Your task to perform on an android device: What's on my calendar today? Image 0: 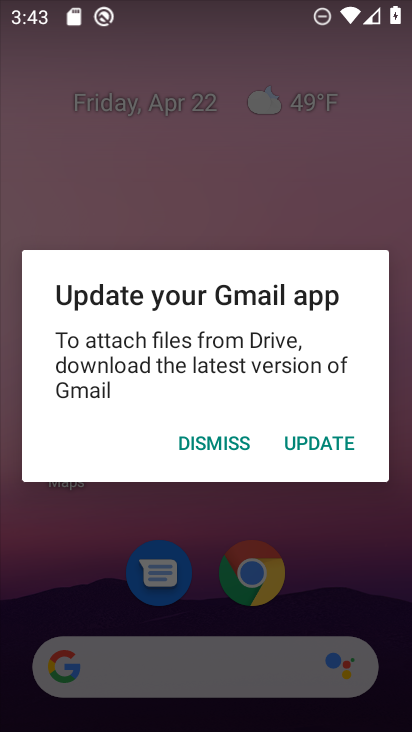
Step 0: press home button
Your task to perform on an android device: What's on my calendar today? Image 1: 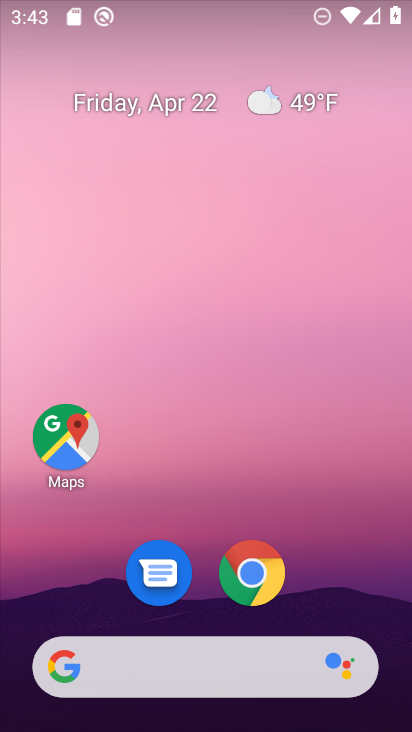
Step 1: drag from (310, 423) to (357, 80)
Your task to perform on an android device: What's on my calendar today? Image 2: 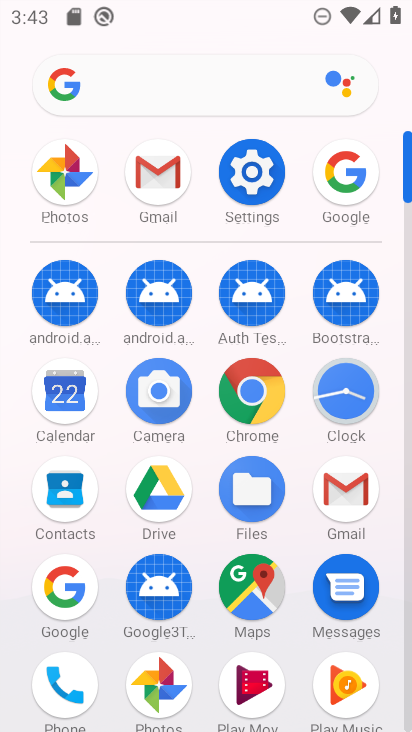
Step 2: click (75, 414)
Your task to perform on an android device: What's on my calendar today? Image 3: 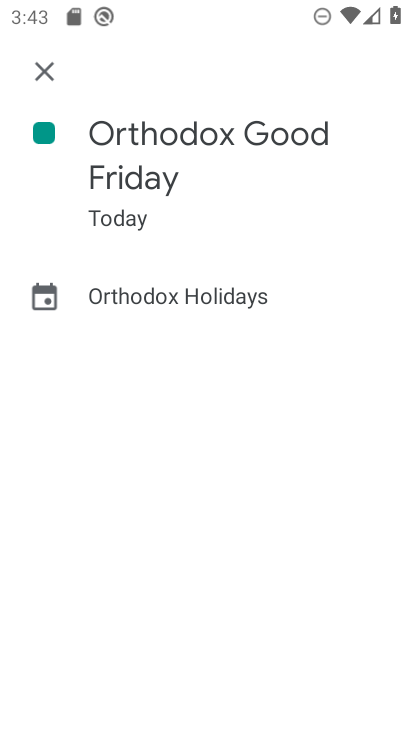
Step 3: click (48, 67)
Your task to perform on an android device: What's on my calendar today? Image 4: 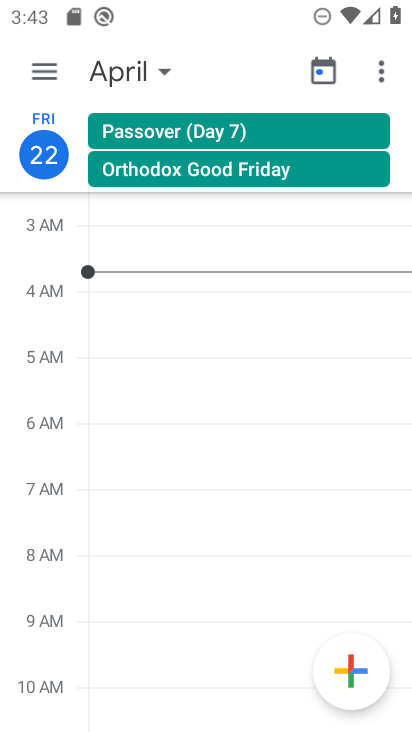
Step 4: task complete